Your task to perform on an android device: Open my contact list Image 0: 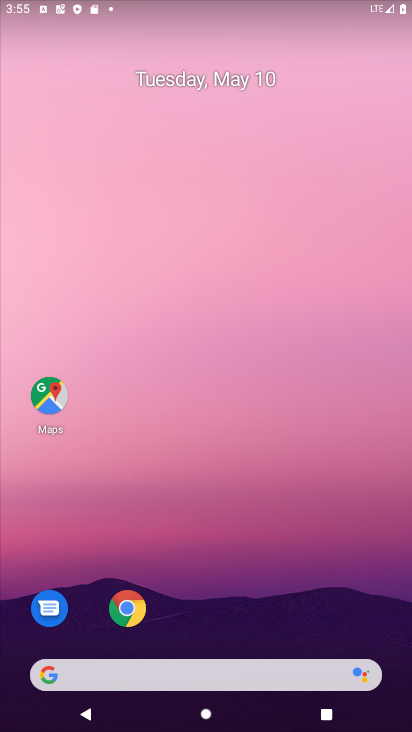
Step 0: drag from (345, 623) to (288, 129)
Your task to perform on an android device: Open my contact list Image 1: 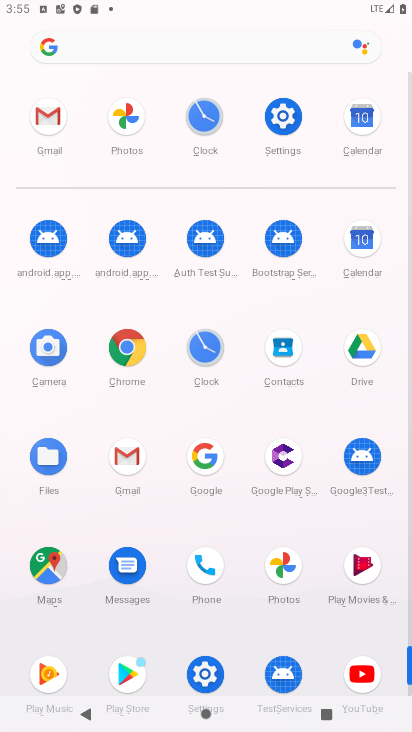
Step 1: click (280, 345)
Your task to perform on an android device: Open my contact list Image 2: 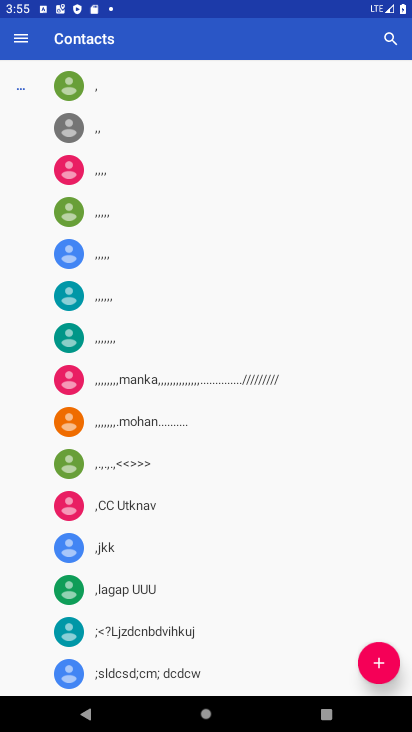
Step 2: task complete